Your task to perform on an android device: Search for "macbook pro 15 inch" on costco, select the first entry, and add it to the cart. Image 0: 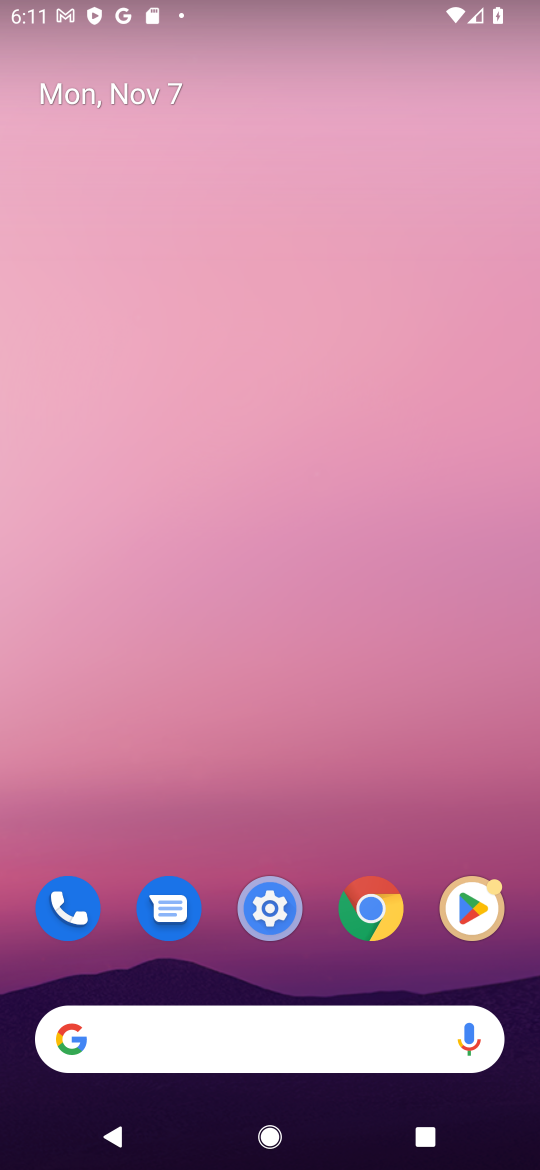
Step 0: click (315, 1049)
Your task to perform on an android device: Search for "macbook pro 15 inch" on costco, select the first entry, and add it to the cart. Image 1: 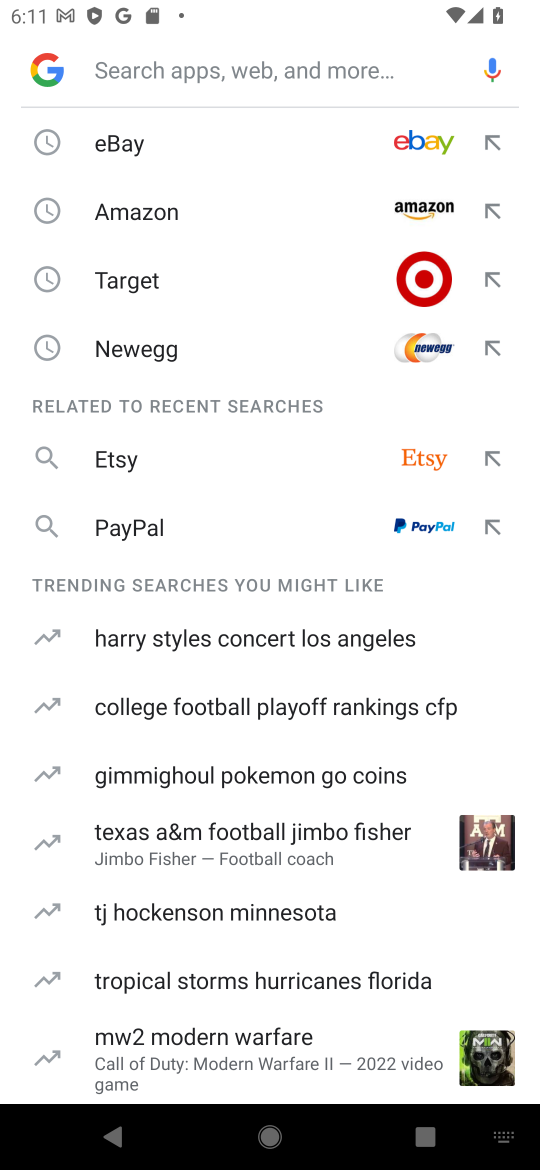
Step 1: type "costco"
Your task to perform on an android device: Search for "macbook pro 15 inch" on costco, select the first entry, and add it to the cart. Image 2: 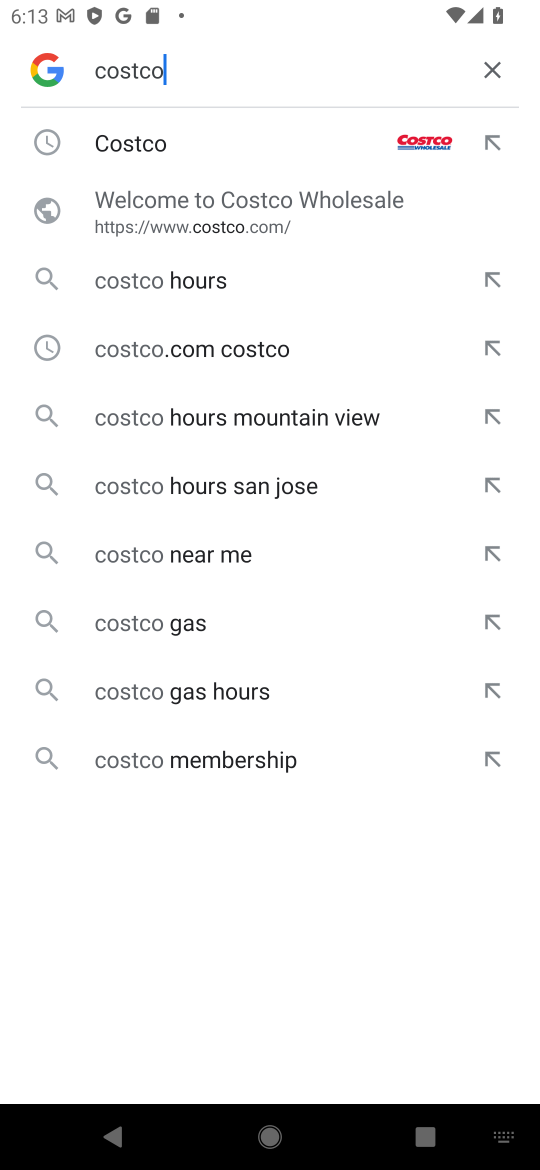
Step 2: task complete